Your task to perform on an android device: turn off data saver in the chrome app Image 0: 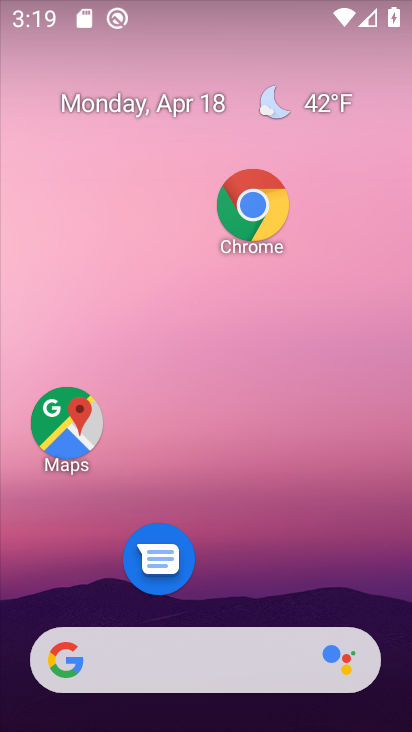
Step 0: click (256, 202)
Your task to perform on an android device: turn off data saver in the chrome app Image 1: 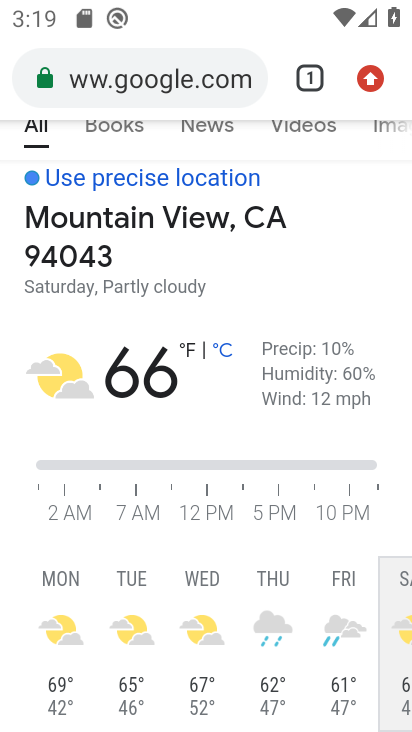
Step 1: click (365, 78)
Your task to perform on an android device: turn off data saver in the chrome app Image 2: 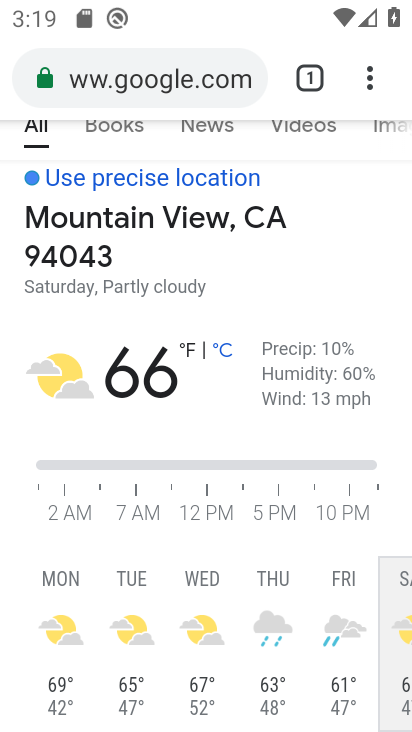
Step 2: click (365, 78)
Your task to perform on an android device: turn off data saver in the chrome app Image 3: 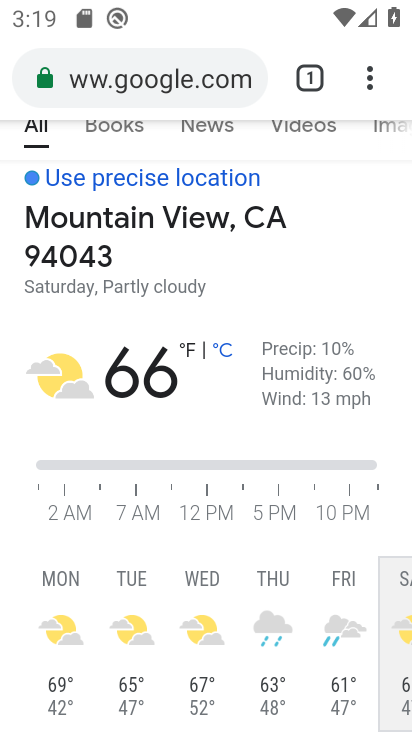
Step 3: click (375, 75)
Your task to perform on an android device: turn off data saver in the chrome app Image 4: 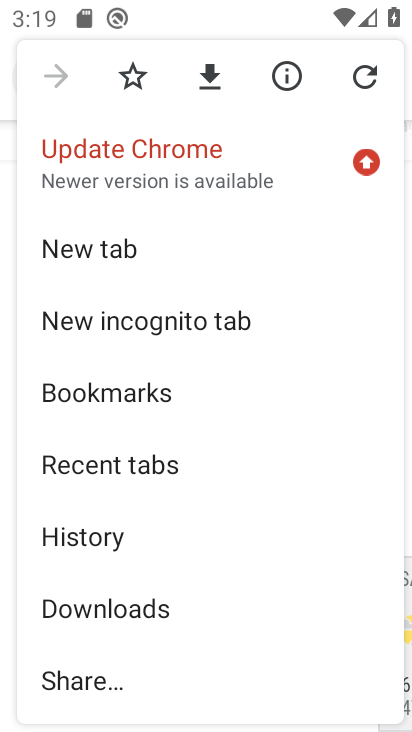
Step 4: drag from (141, 691) to (184, 292)
Your task to perform on an android device: turn off data saver in the chrome app Image 5: 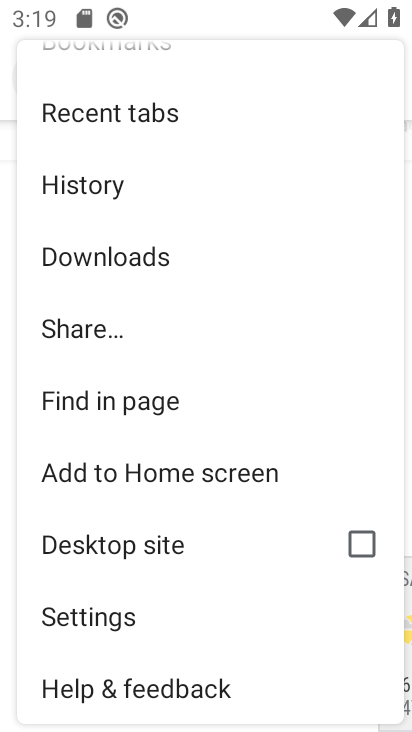
Step 5: click (91, 618)
Your task to perform on an android device: turn off data saver in the chrome app Image 6: 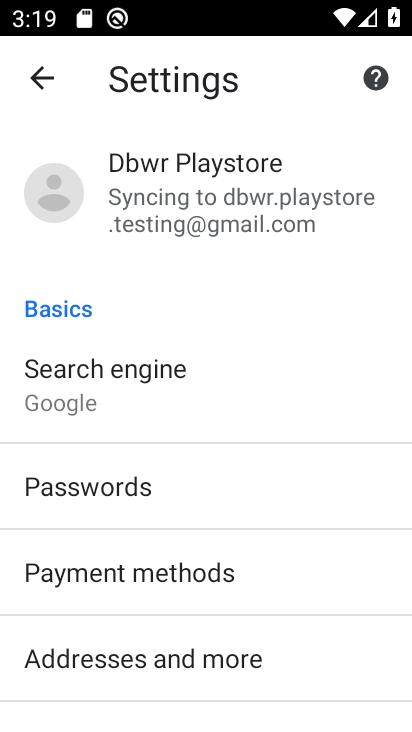
Step 6: drag from (176, 544) to (239, 242)
Your task to perform on an android device: turn off data saver in the chrome app Image 7: 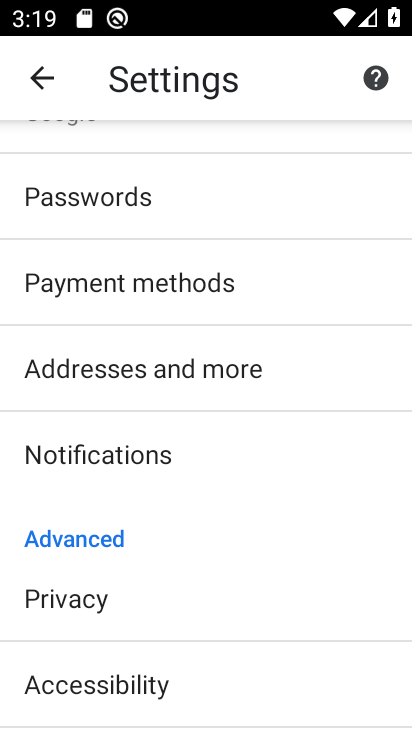
Step 7: drag from (207, 565) to (277, 271)
Your task to perform on an android device: turn off data saver in the chrome app Image 8: 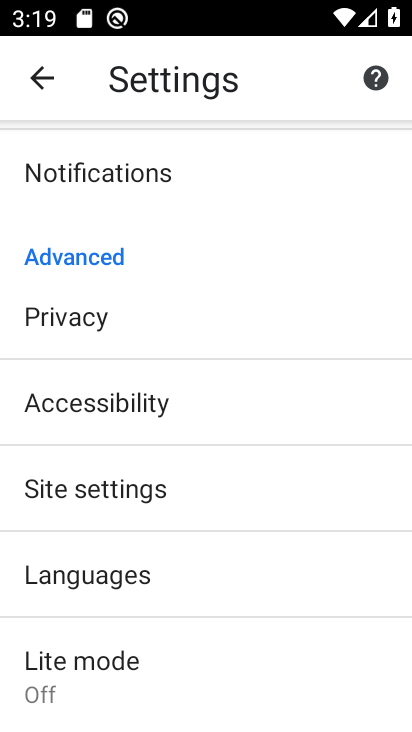
Step 8: click (107, 656)
Your task to perform on an android device: turn off data saver in the chrome app Image 9: 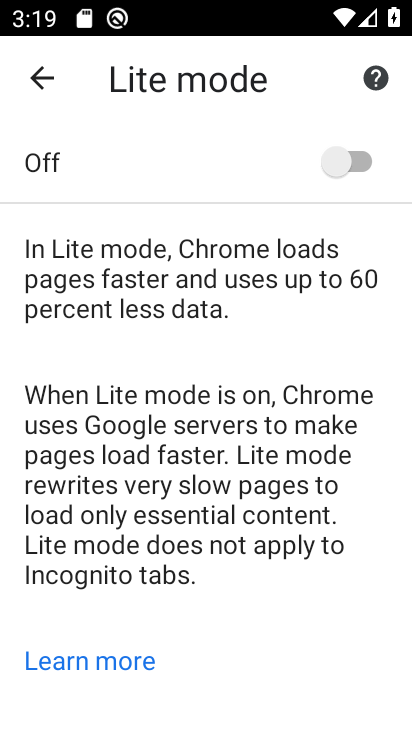
Step 9: task complete